Your task to perform on an android device: Check the weather Image 0: 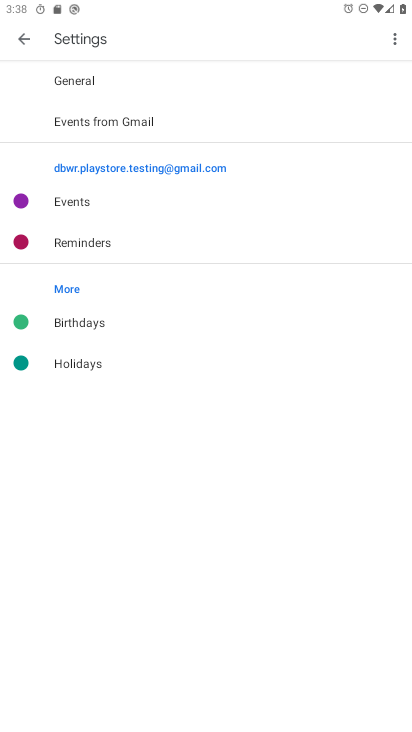
Step 0: press home button
Your task to perform on an android device: Check the weather Image 1: 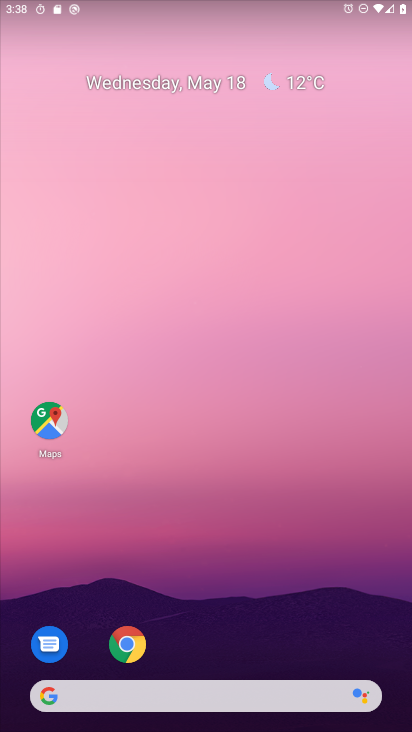
Step 1: click (298, 84)
Your task to perform on an android device: Check the weather Image 2: 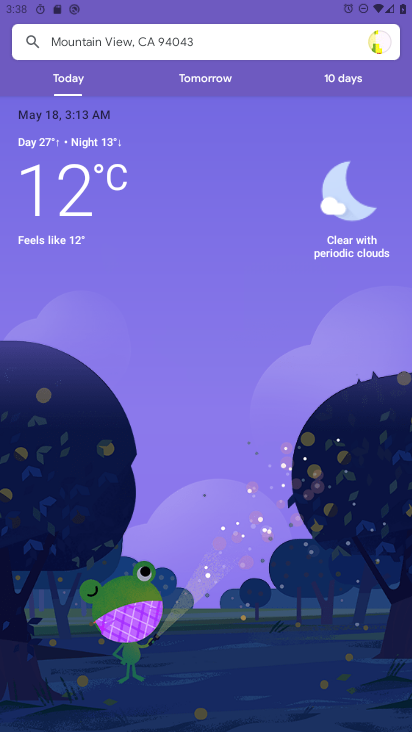
Step 2: task complete